Your task to perform on an android device: Open Youtube and go to "Your channel" Image 0: 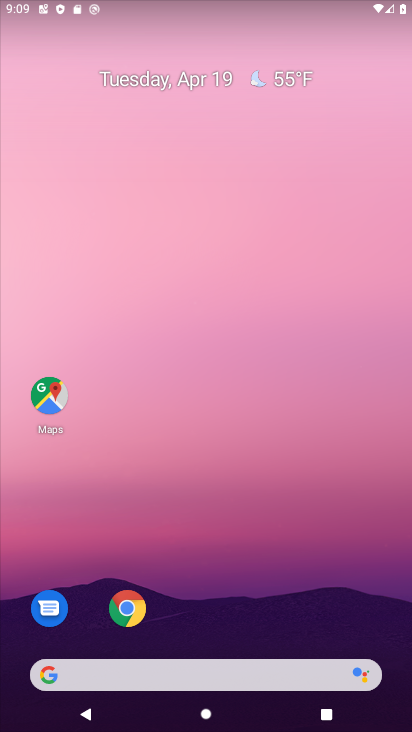
Step 0: drag from (159, 541) to (238, 52)
Your task to perform on an android device: Open Youtube and go to "Your channel" Image 1: 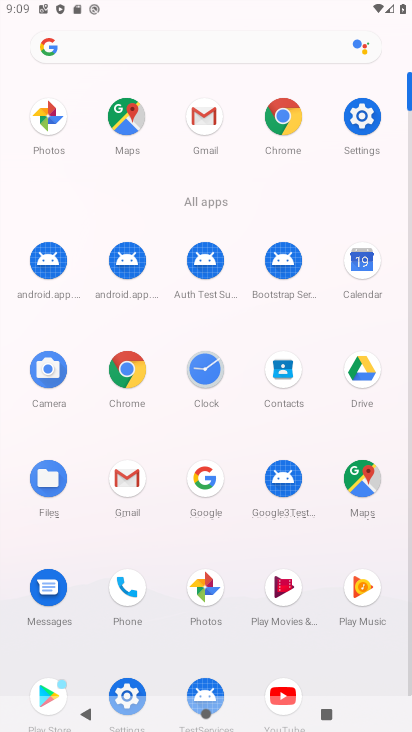
Step 1: click (290, 683)
Your task to perform on an android device: Open Youtube and go to "Your channel" Image 2: 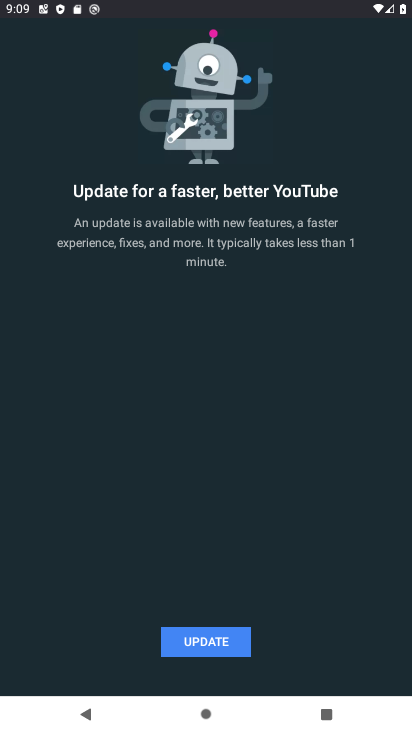
Step 2: press back button
Your task to perform on an android device: Open Youtube and go to "Your channel" Image 3: 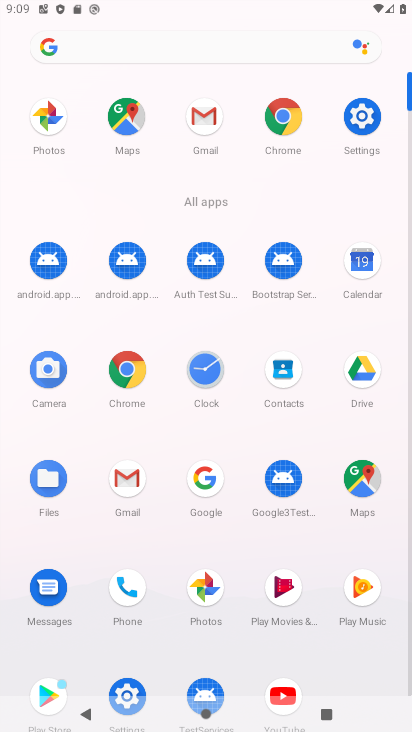
Step 3: click (293, 683)
Your task to perform on an android device: Open Youtube and go to "Your channel" Image 4: 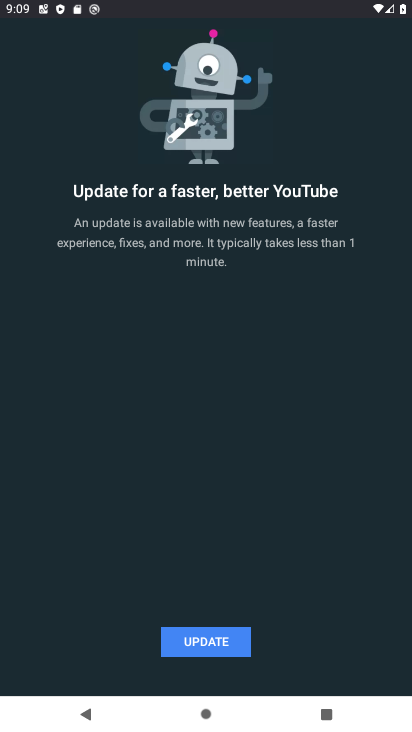
Step 4: click (225, 643)
Your task to perform on an android device: Open Youtube and go to "Your channel" Image 5: 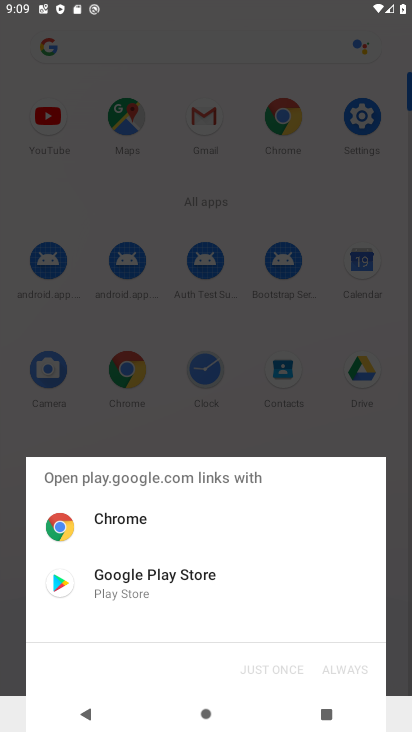
Step 5: click (163, 583)
Your task to perform on an android device: Open Youtube and go to "Your channel" Image 6: 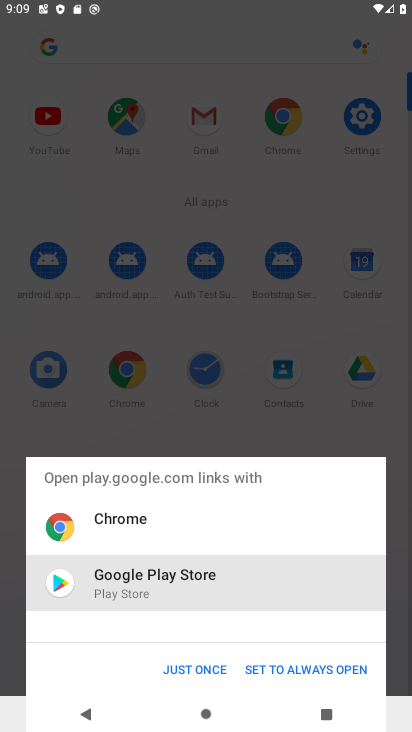
Step 6: click (178, 667)
Your task to perform on an android device: Open Youtube and go to "Your channel" Image 7: 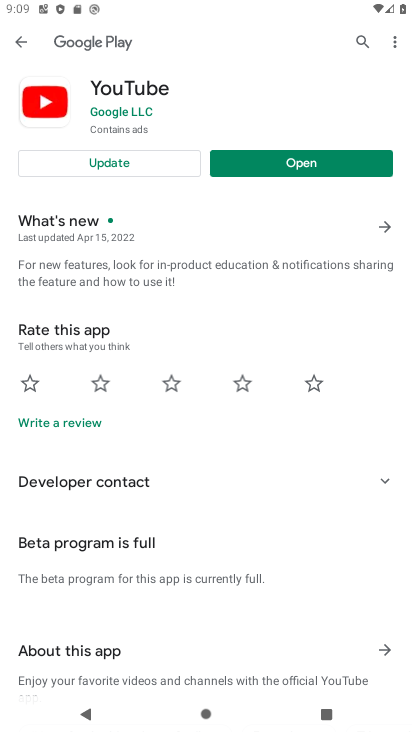
Step 7: click (135, 170)
Your task to perform on an android device: Open Youtube and go to "Your channel" Image 8: 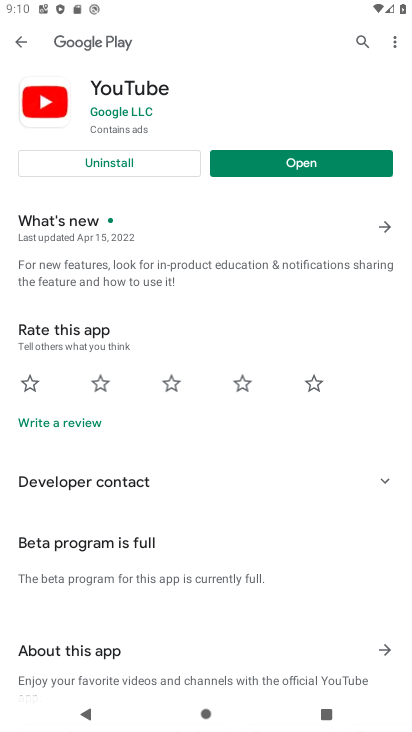
Step 8: click (336, 171)
Your task to perform on an android device: Open Youtube and go to "Your channel" Image 9: 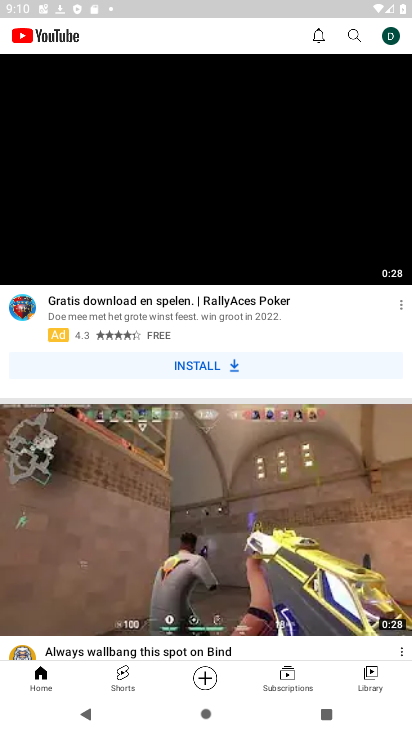
Step 9: click (374, 683)
Your task to perform on an android device: Open Youtube and go to "Your channel" Image 10: 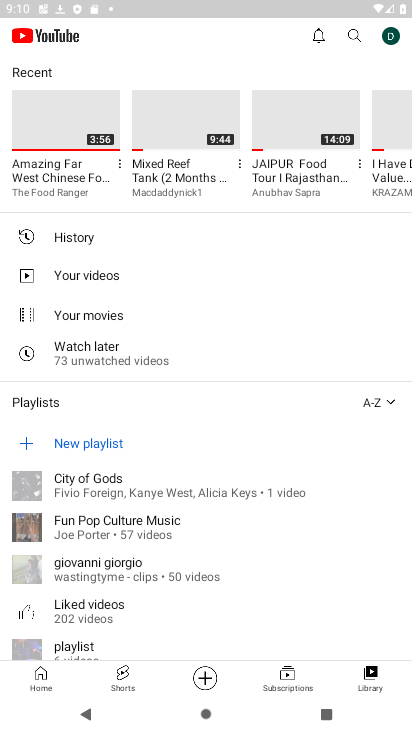
Step 10: click (390, 35)
Your task to perform on an android device: Open Youtube and go to "Your channel" Image 11: 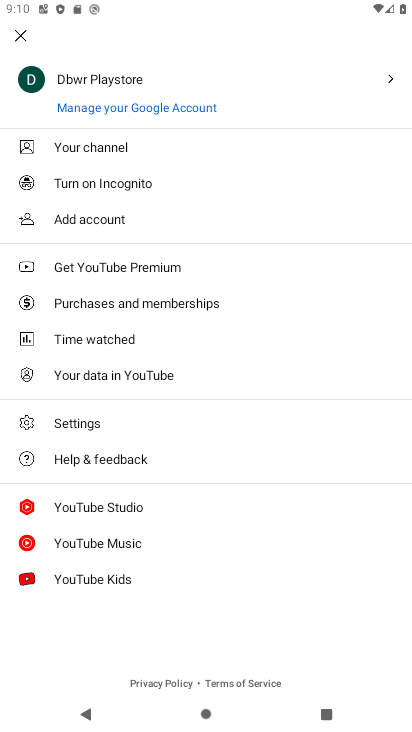
Step 11: click (187, 151)
Your task to perform on an android device: Open Youtube and go to "Your channel" Image 12: 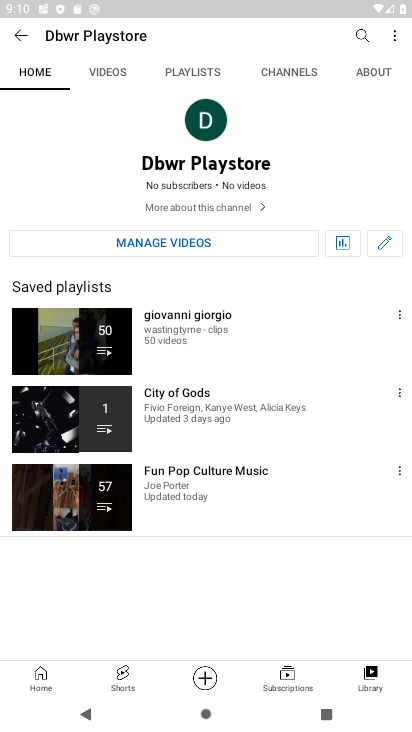
Step 12: task complete